Your task to perform on an android device: check the backup settings in the google photos Image 0: 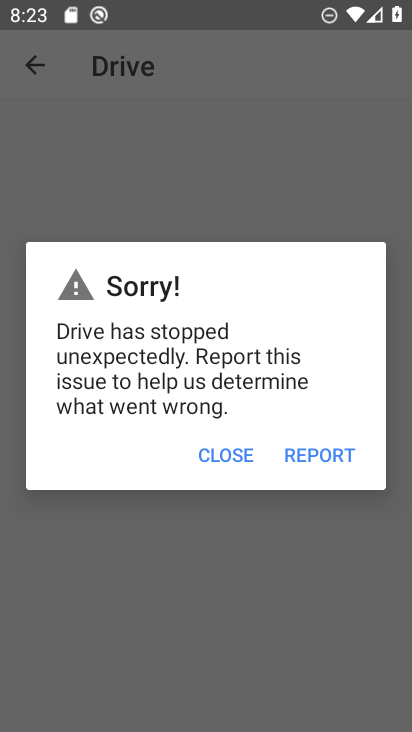
Step 0: press home button
Your task to perform on an android device: check the backup settings in the google photos Image 1: 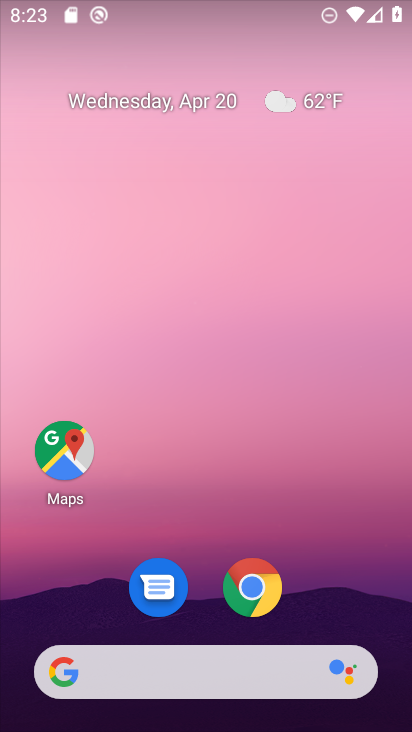
Step 1: drag from (342, 522) to (325, 5)
Your task to perform on an android device: check the backup settings in the google photos Image 2: 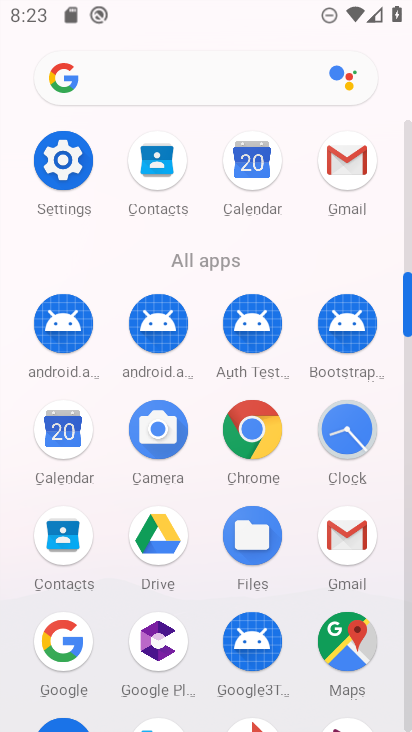
Step 2: drag from (284, 262) to (271, 101)
Your task to perform on an android device: check the backup settings in the google photos Image 3: 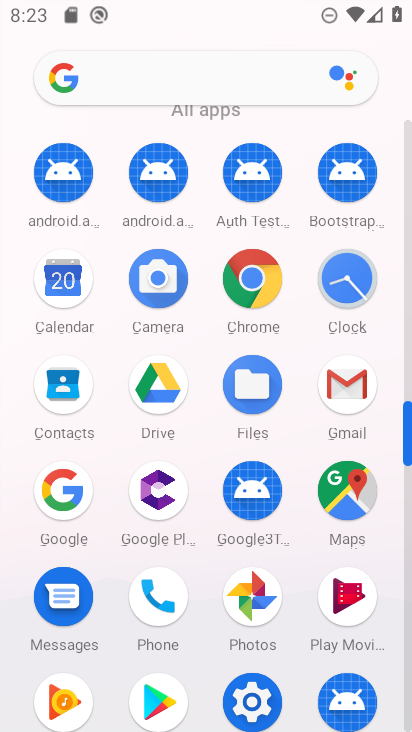
Step 3: click (156, 595)
Your task to perform on an android device: check the backup settings in the google photos Image 4: 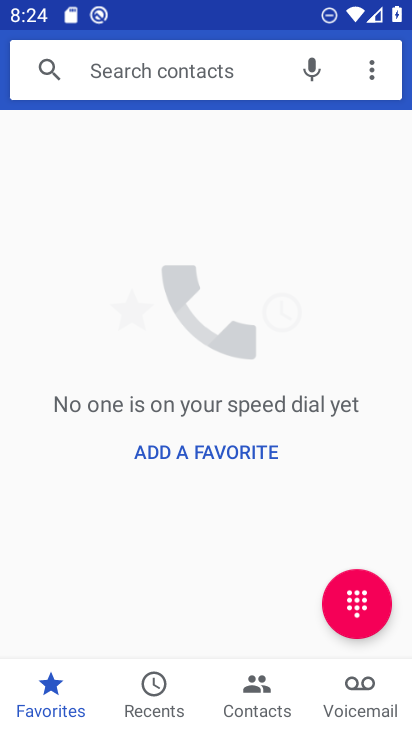
Step 4: press home button
Your task to perform on an android device: check the backup settings in the google photos Image 5: 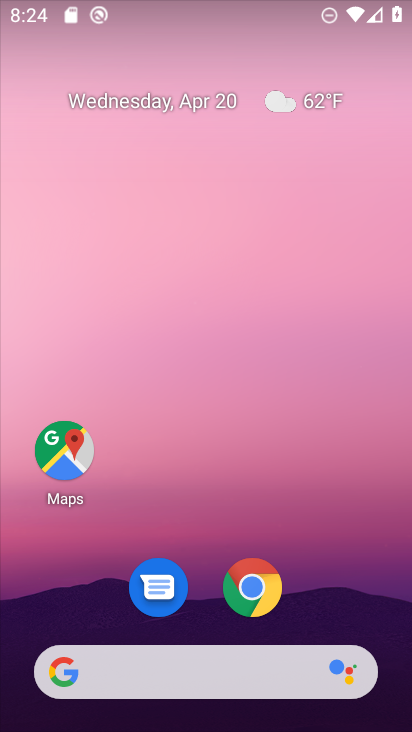
Step 5: drag from (377, 533) to (364, 0)
Your task to perform on an android device: check the backup settings in the google photos Image 6: 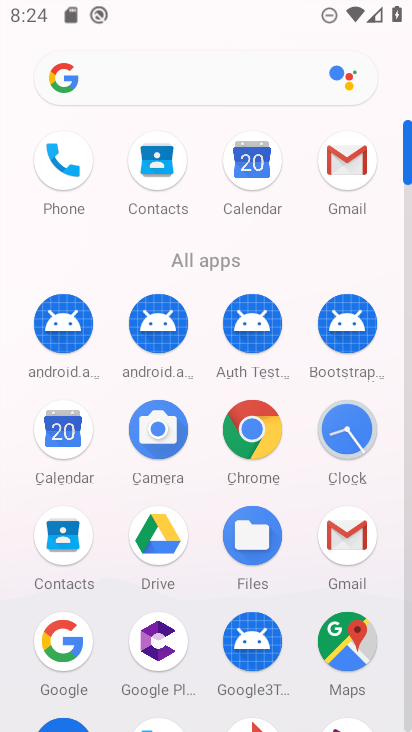
Step 6: drag from (199, 492) to (207, 209)
Your task to perform on an android device: check the backup settings in the google photos Image 7: 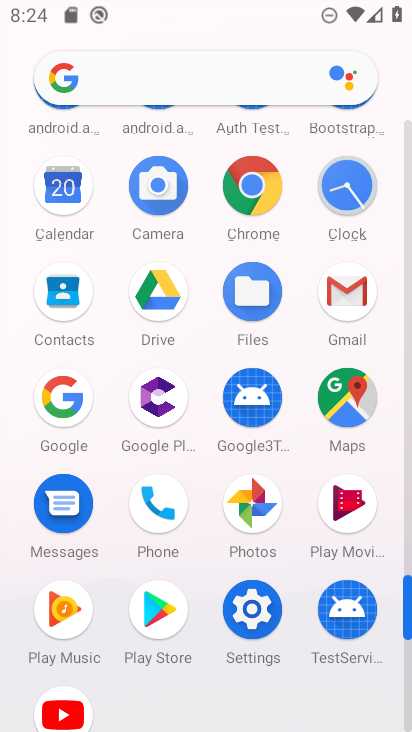
Step 7: click (244, 487)
Your task to perform on an android device: check the backup settings in the google photos Image 8: 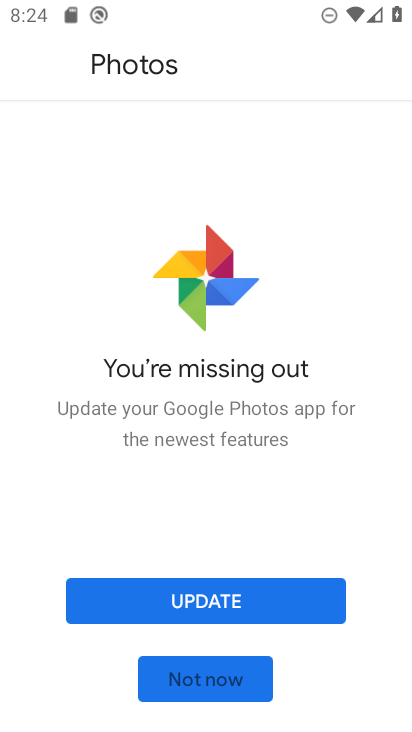
Step 8: click (241, 688)
Your task to perform on an android device: check the backup settings in the google photos Image 9: 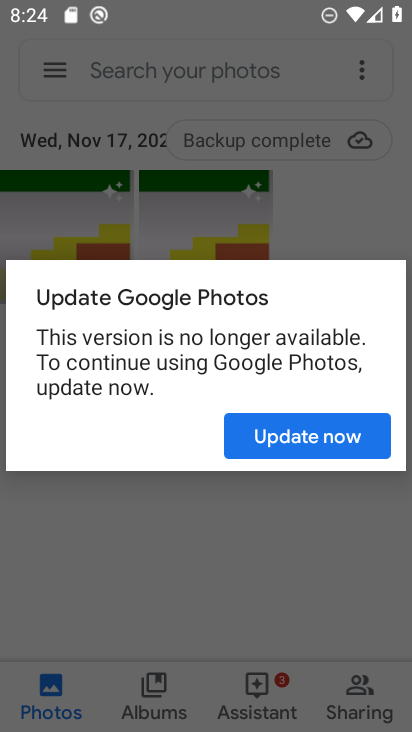
Step 9: click (290, 446)
Your task to perform on an android device: check the backup settings in the google photos Image 10: 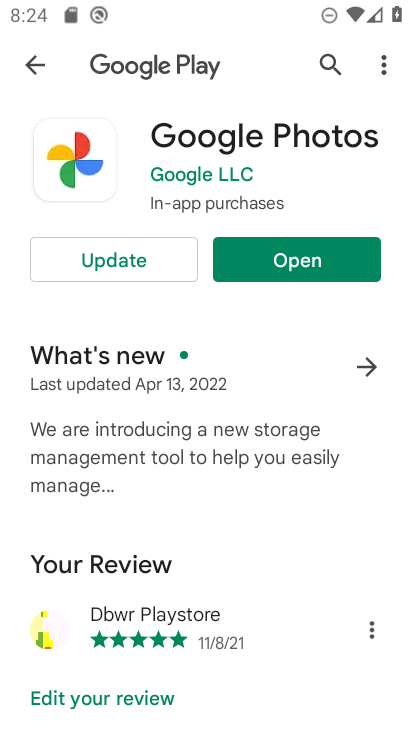
Step 10: click (274, 267)
Your task to perform on an android device: check the backup settings in the google photos Image 11: 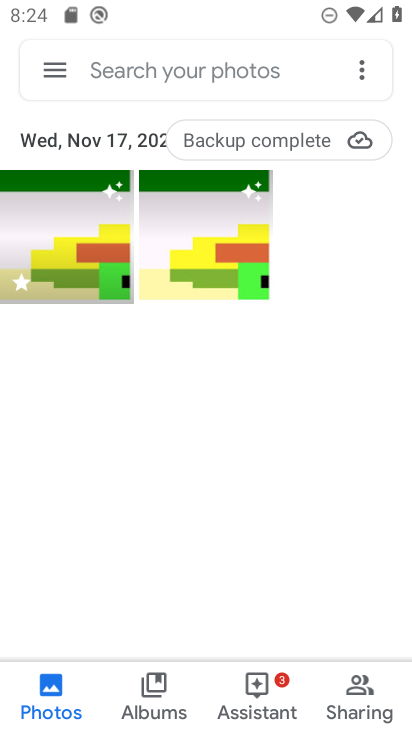
Step 11: click (72, 72)
Your task to perform on an android device: check the backup settings in the google photos Image 12: 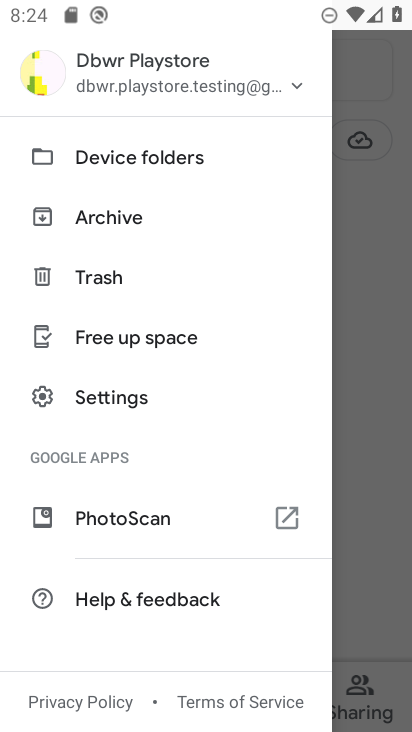
Step 12: click (118, 392)
Your task to perform on an android device: check the backup settings in the google photos Image 13: 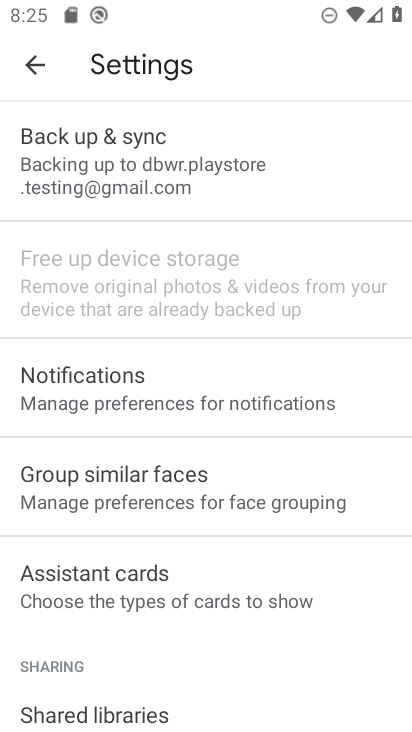
Step 13: click (215, 167)
Your task to perform on an android device: check the backup settings in the google photos Image 14: 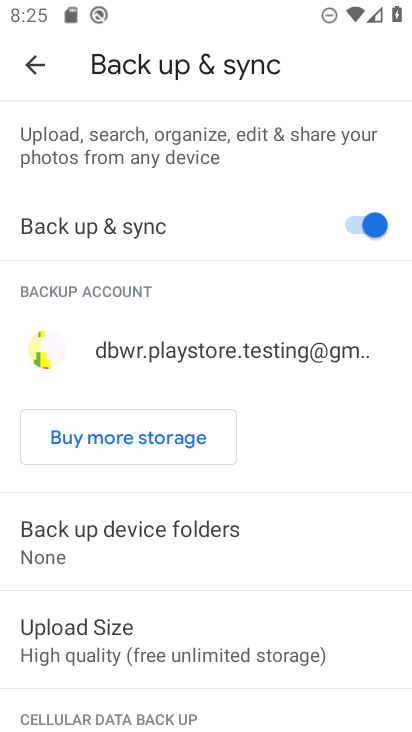
Step 14: task complete